Your task to perform on an android device: allow notifications from all sites in the chrome app Image 0: 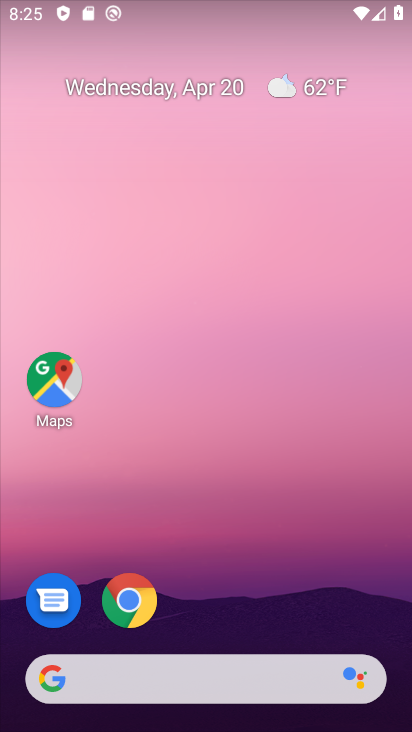
Step 0: click (124, 599)
Your task to perform on an android device: allow notifications from all sites in the chrome app Image 1: 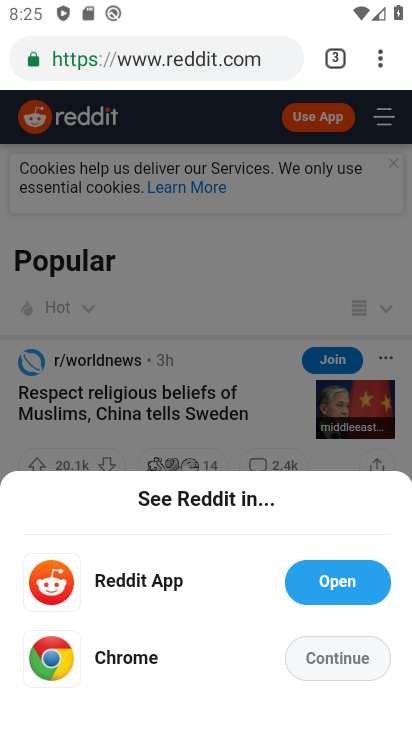
Step 1: click (380, 63)
Your task to perform on an android device: allow notifications from all sites in the chrome app Image 2: 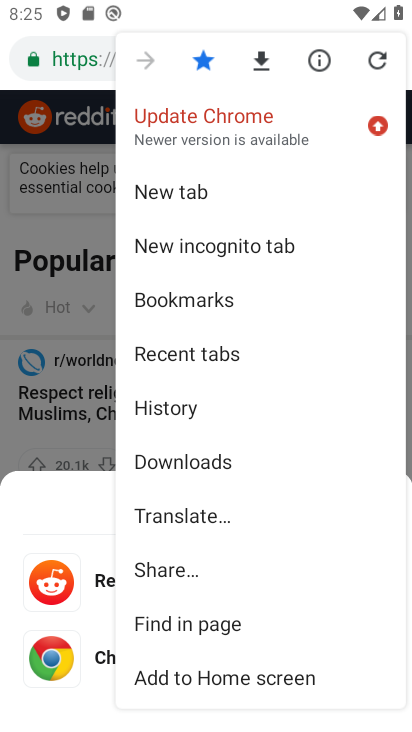
Step 2: drag from (180, 634) to (191, 206)
Your task to perform on an android device: allow notifications from all sites in the chrome app Image 3: 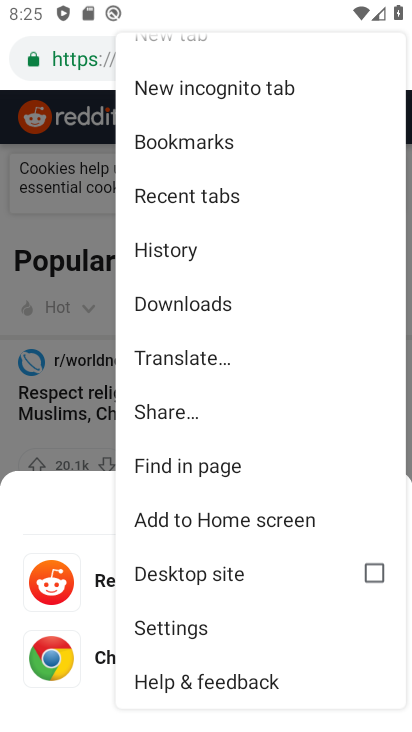
Step 3: click (171, 626)
Your task to perform on an android device: allow notifications from all sites in the chrome app Image 4: 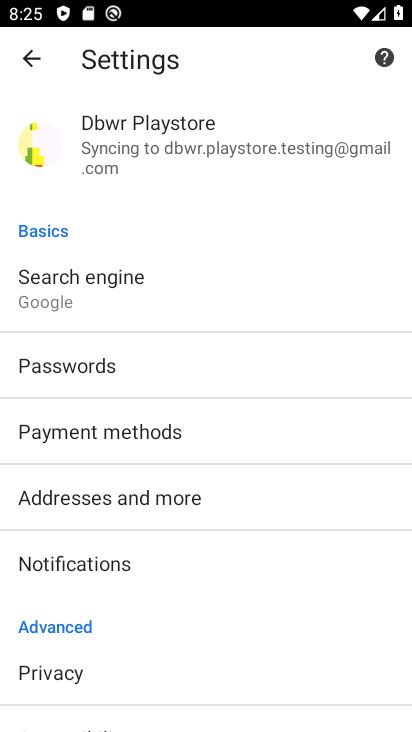
Step 4: drag from (118, 630) to (138, 239)
Your task to perform on an android device: allow notifications from all sites in the chrome app Image 5: 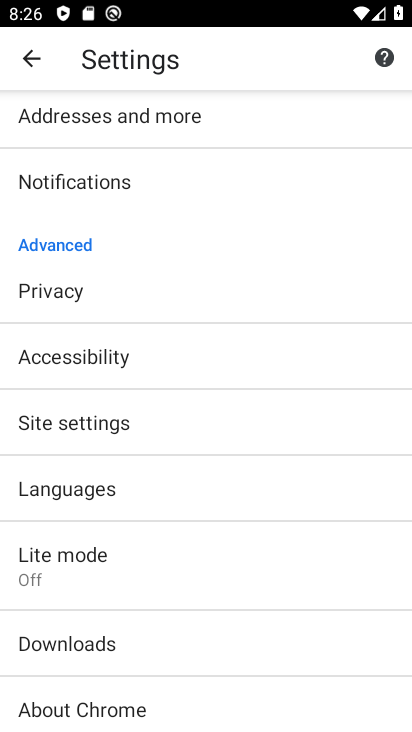
Step 5: click (71, 425)
Your task to perform on an android device: allow notifications from all sites in the chrome app Image 6: 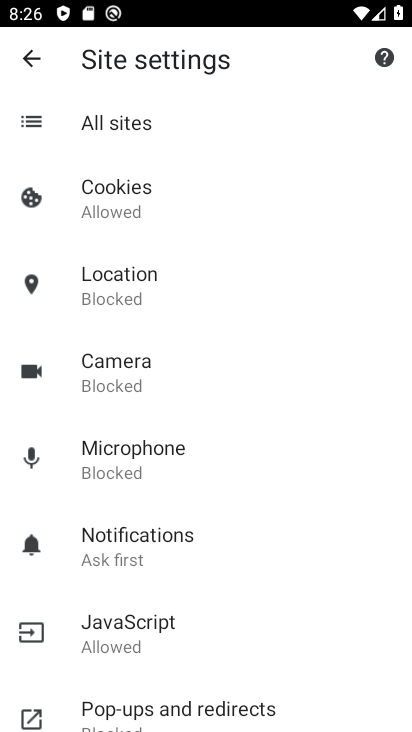
Step 6: click (133, 542)
Your task to perform on an android device: allow notifications from all sites in the chrome app Image 7: 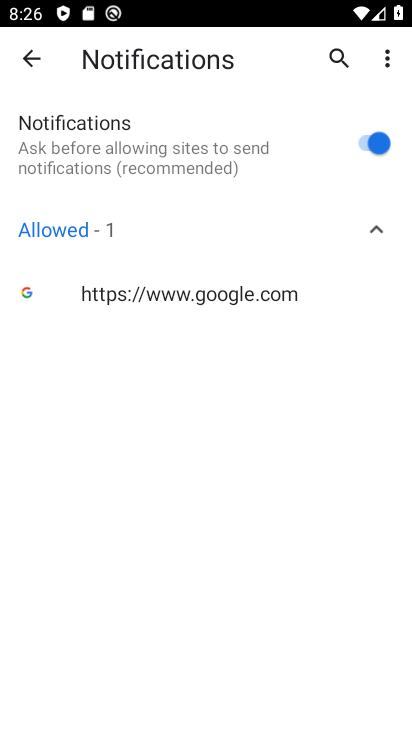
Step 7: task complete